Your task to perform on an android device: open a bookmark in the chrome app Image 0: 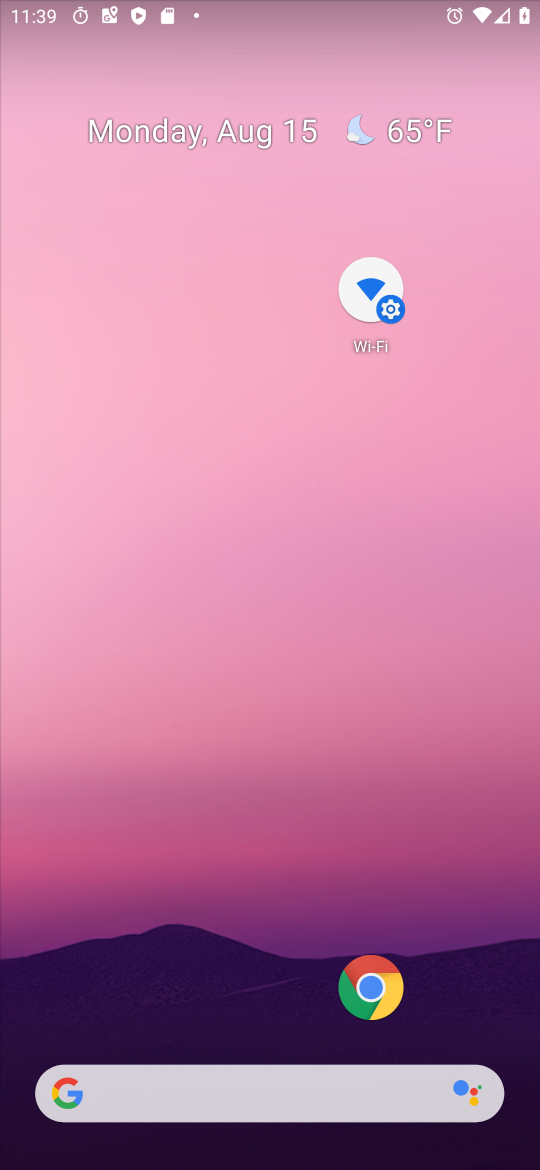
Step 0: click (379, 999)
Your task to perform on an android device: open a bookmark in the chrome app Image 1: 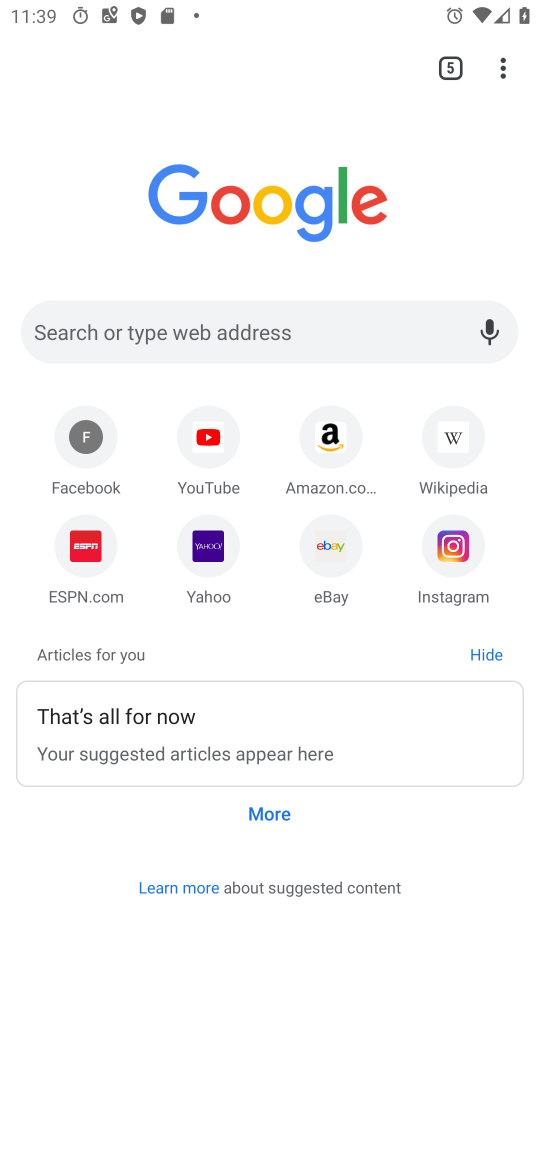
Step 1: click (502, 60)
Your task to perform on an android device: open a bookmark in the chrome app Image 2: 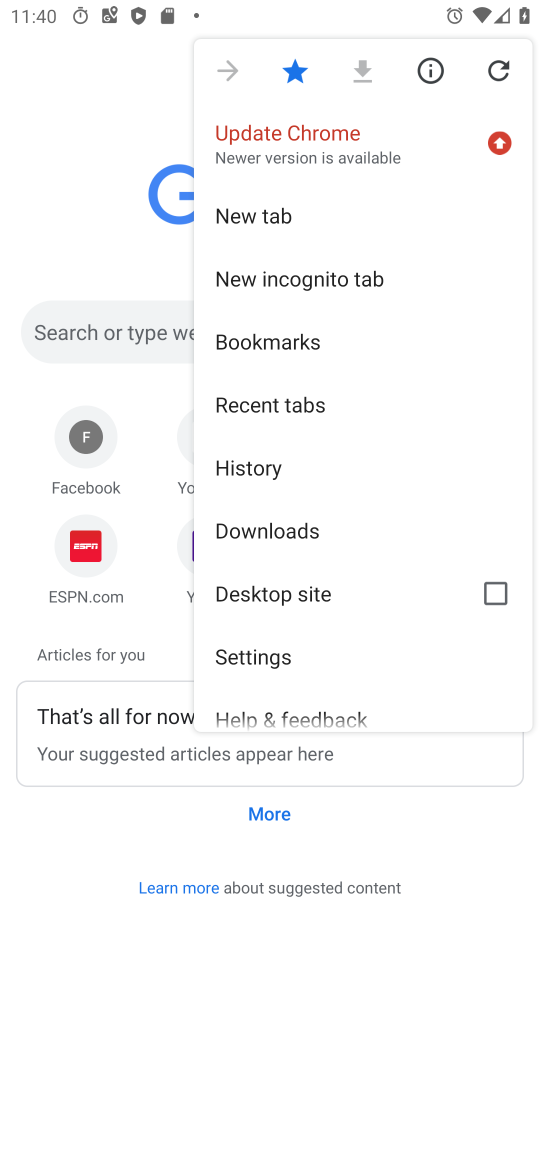
Step 2: click (277, 334)
Your task to perform on an android device: open a bookmark in the chrome app Image 3: 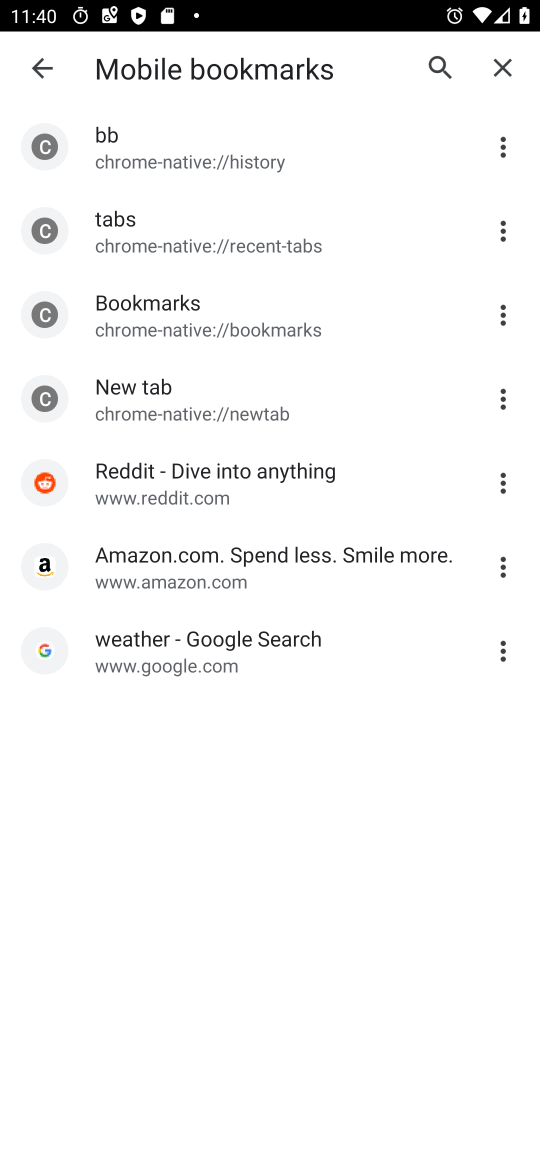
Step 3: task complete